Your task to perform on an android device: Open Google Chrome and open the bookmarks view Image 0: 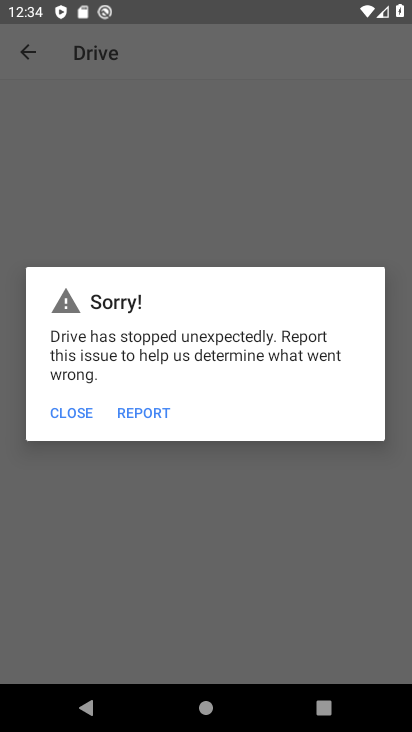
Step 0: press home button
Your task to perform on an android device: Open Google Chrome and open the bookmarks view Image 1: 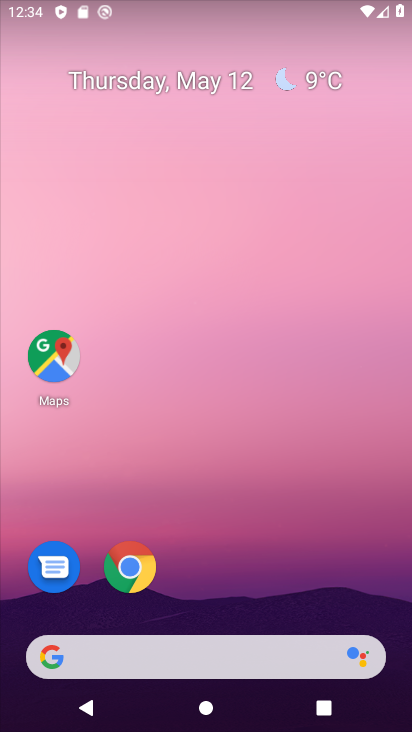
Step 1: click (123, 563)
Your task to perform on an android device: Open Google Chrome and open the bookmarks view Image 2: 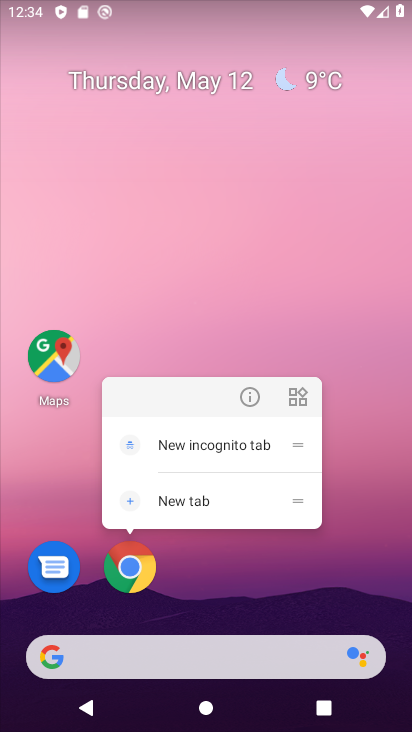
Step 2: click (125, 565)
Your task to perform on an android device: Open Google Chrome and open the bookmarks view Image 3: 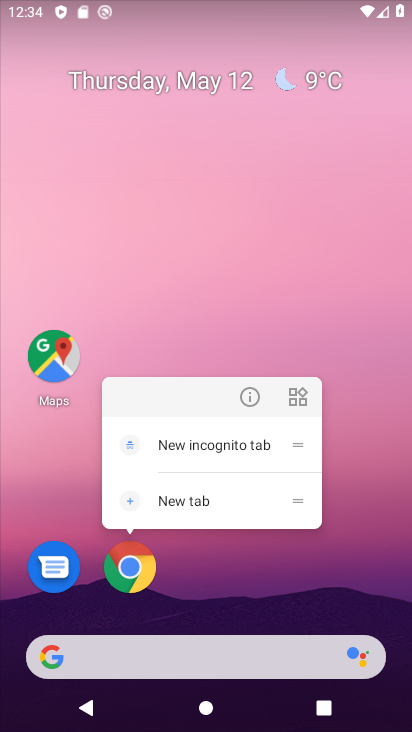
Step 3: click (126, 567)
Your task to perform on an android device: Open Google Chrome and open the bookmarks view Image 4: 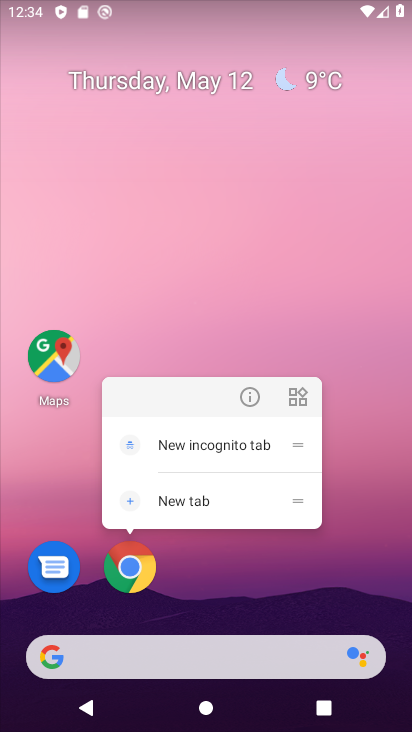
Step 4: click (130, 582)
Your task to perform on an android device: Open Google Chrome and open the bookmarks view Image 5: 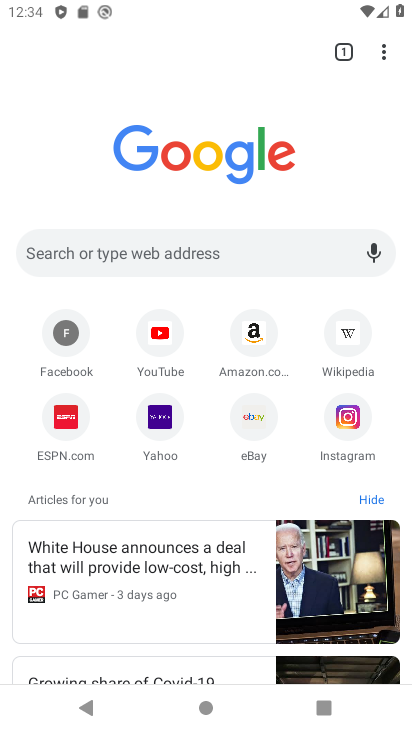
Step 5: task complete